Your task to perform on an android device: install app "Pluto TV - Live TV and Movies" Image 0: 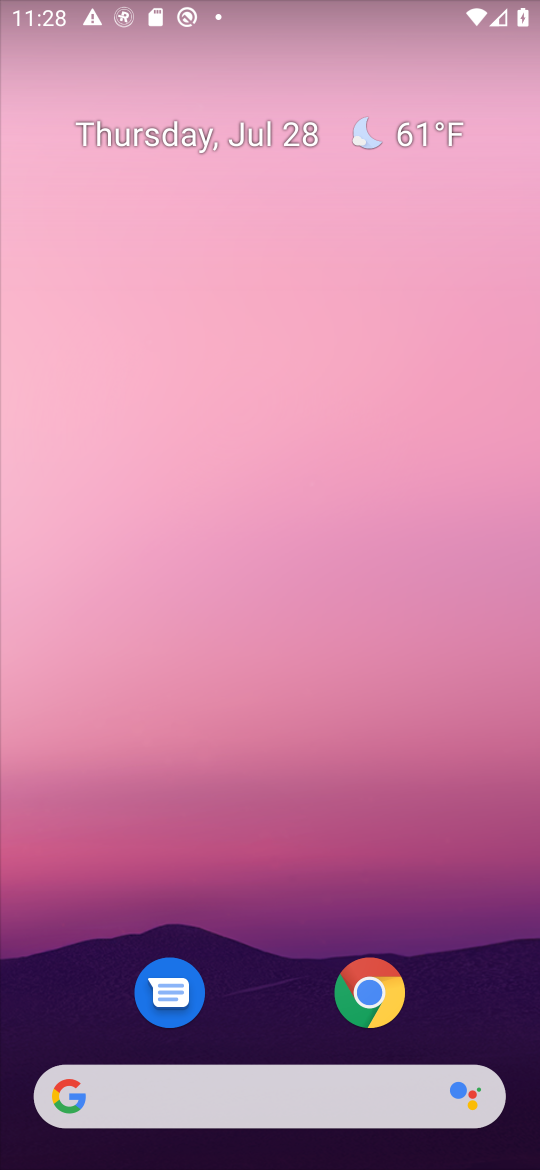
Step 0: drag from (238, 1101) to (153, 208)
Your task to perform on an android device: install app "Pluto TV - Live TV and Movies" Image 1: 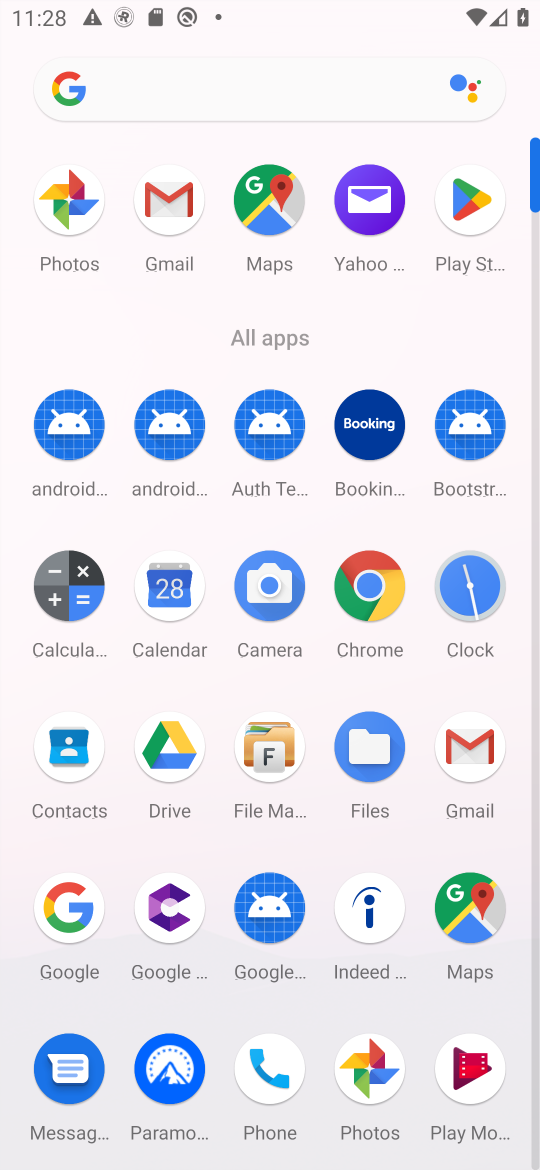
Step 1: click (470, 207)
Your task to perform on an android device: install app "Pluto TV - Live TV and Movies" Image 2: 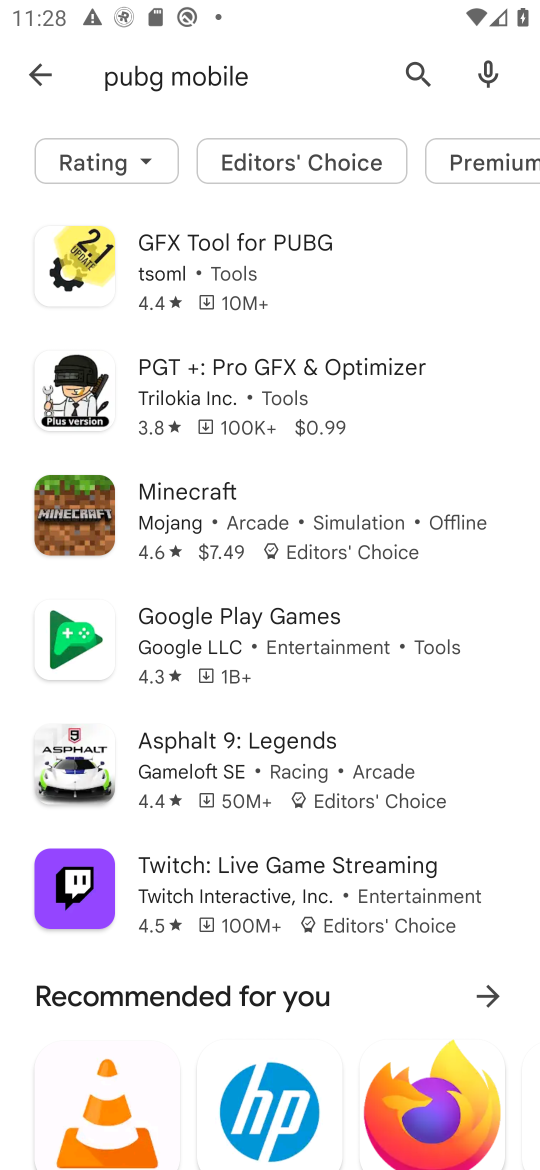
Step 2: click (408, 73)
Your task to perform on an android device: install app "Pluto TV - Live TV and Movies" Image 3: 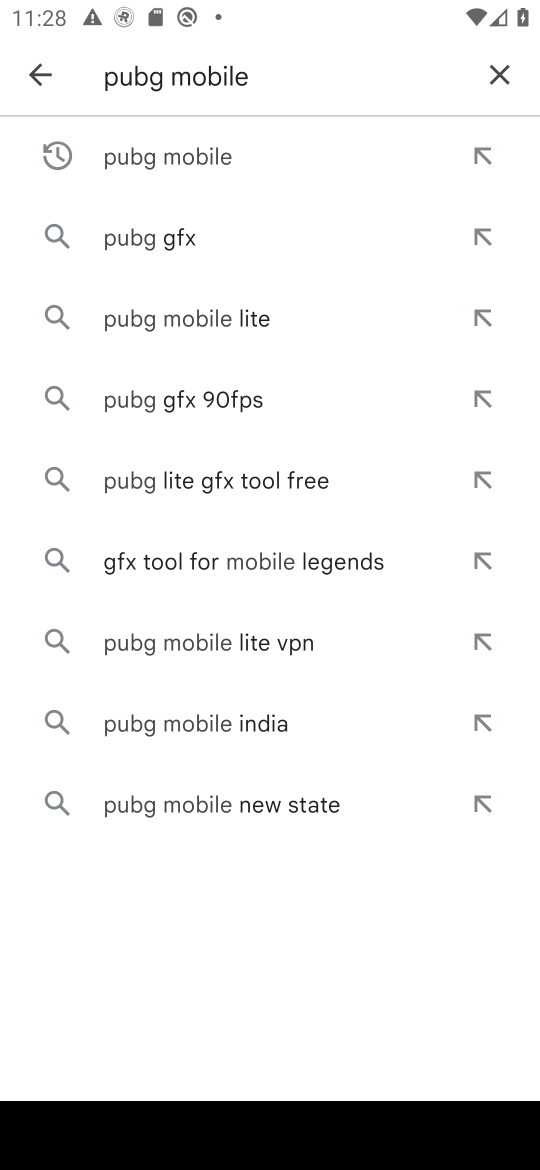
Step 3: click (501, 70)
Your task to perform on an android device: install app "Pluto TV - Live TV and Movies" Image 4: 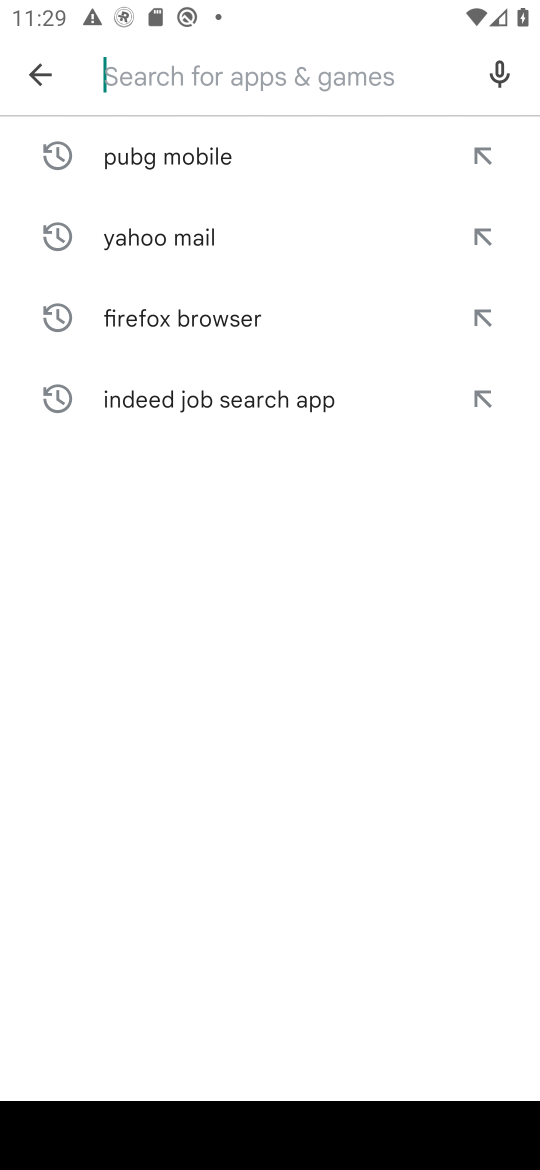
Step 4: click (277, 83)
Your task to perform on an android device: install app "Pluto TV - Live TV and Movies" Image 5: 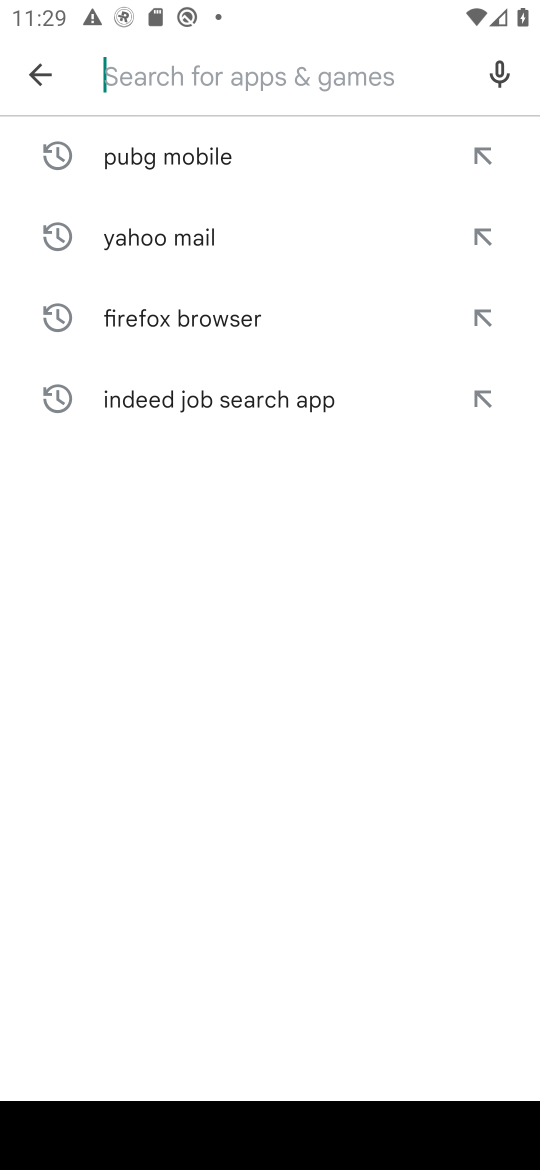
Step 5: type "Pluto TV - Live TV and Movies"
Your task to perform on an android device: install app "Pluto TV - Live TV and Movies" Image 6: 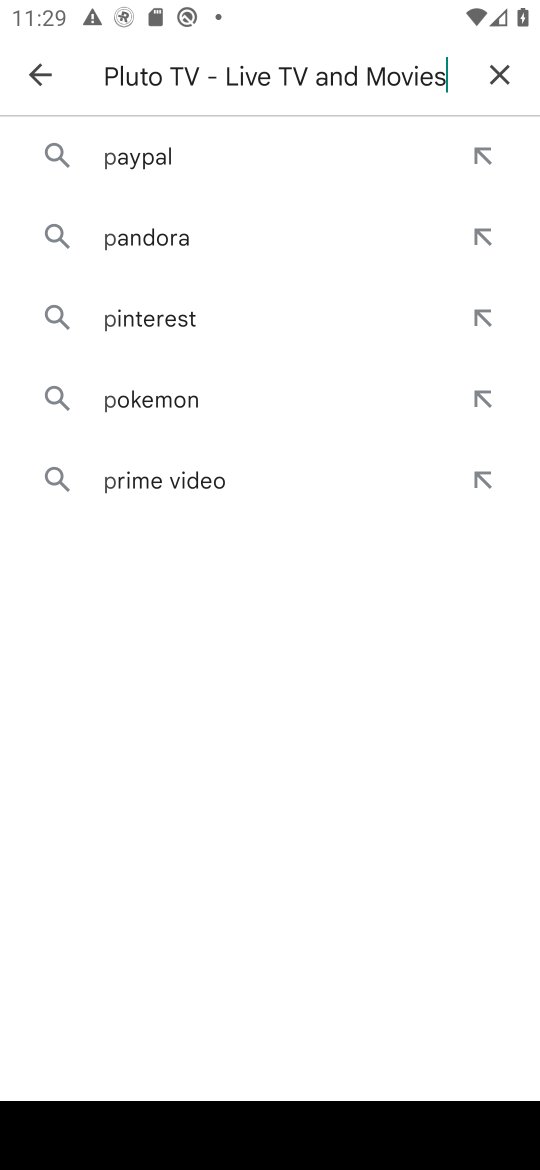
Step 6: type ""
Your task to perform on an android device: install app "Pluto TV - Live TV and Movies" Image 7: 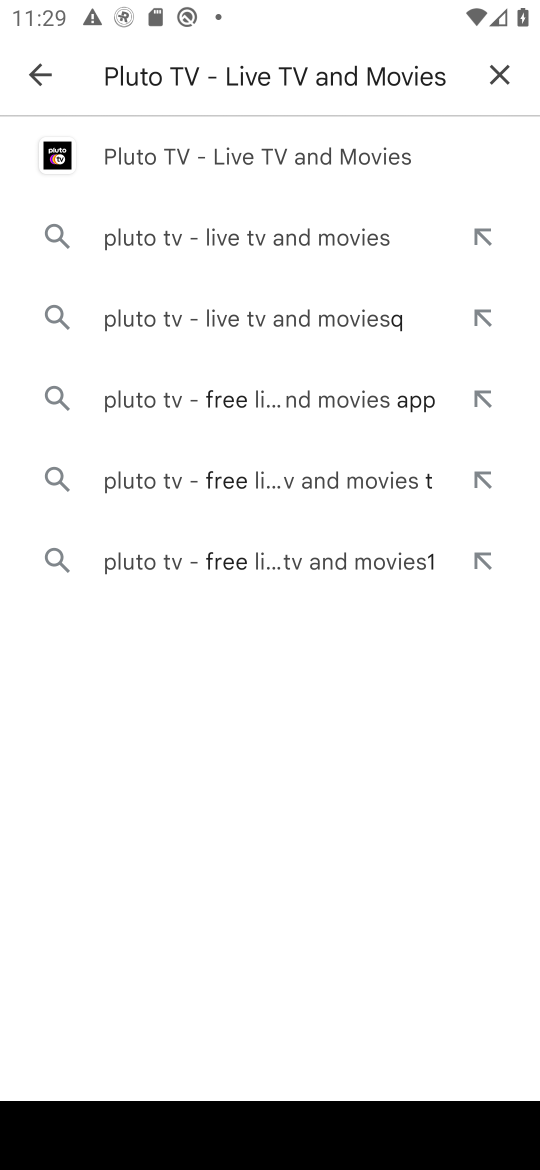
Step 7: click (275, 158)
Your task to perform on an android device: install app "Pluto TV - Live TV and Movies" Image 8: 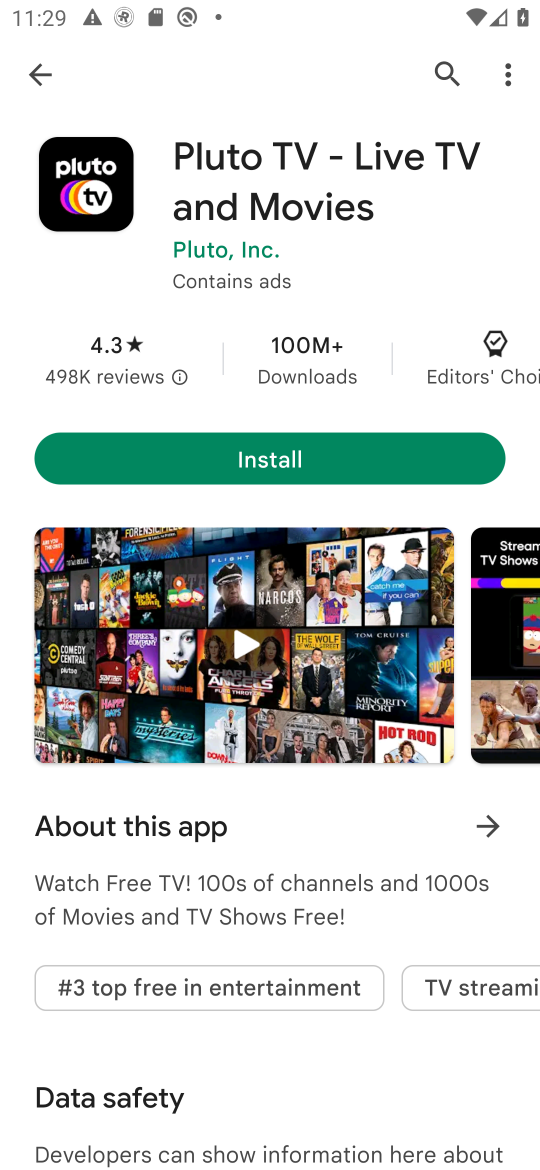
Step 8: click (312, 460)
Your task to perform on an android device: install app "Pluto TV - Live TV and Movies" Image 9: 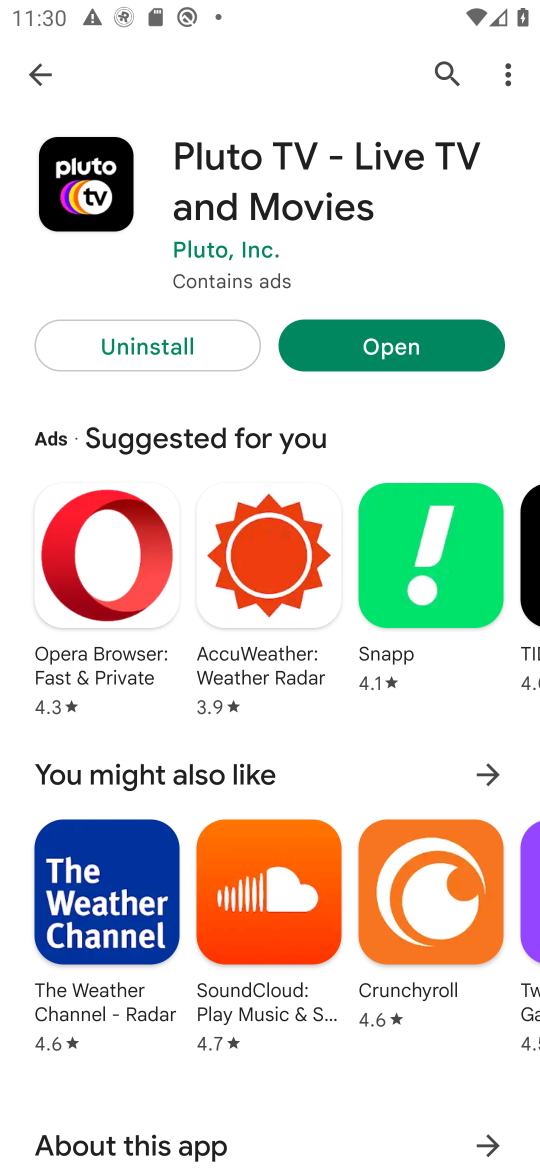
Step 9: task complete